Your task to perform on an android device: toggle wifi Image 0: 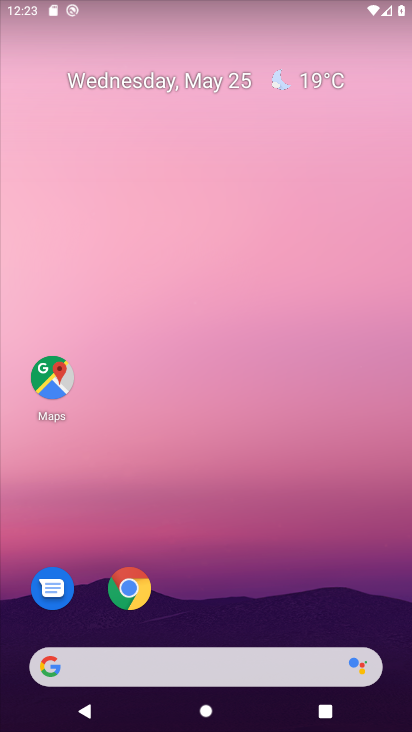
Step 0: drag from (208, 574) to (311, 120)
Your task to perform on an android device: toggle wifi Image 1: 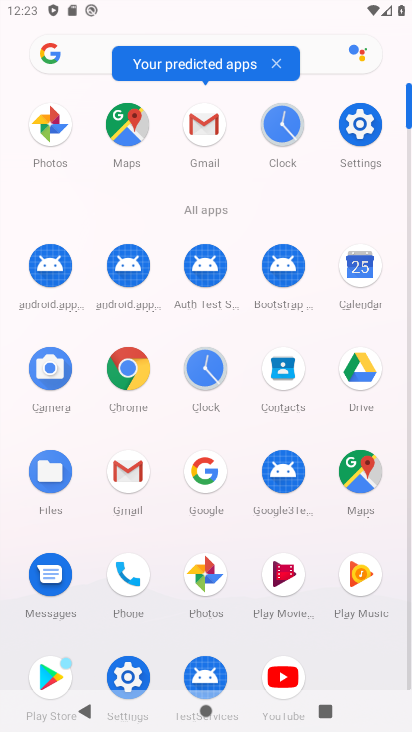
Step 1: click (122, 676)
Your task to perform on an android device: toggle wifi Image 2: 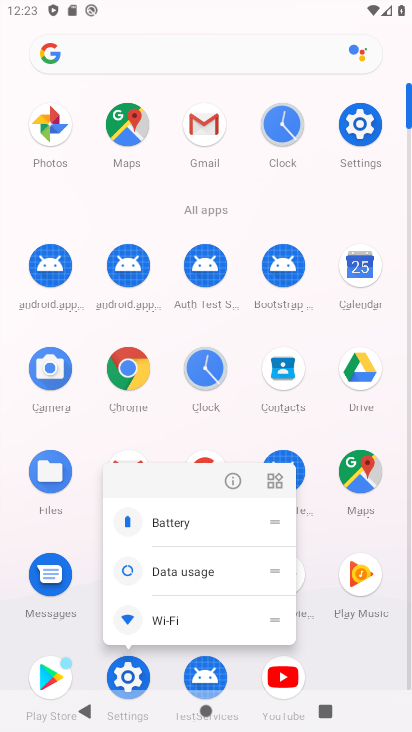
Step 2: click (134, 678)
Your task to perform on an android device: toggle wifi Image 3: 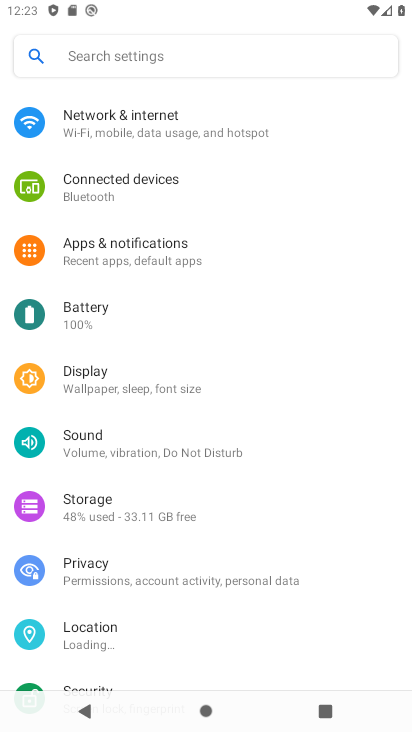
Step 3: click (173, 135)
Your task to perform on an android device: toggle wifi Image 4: 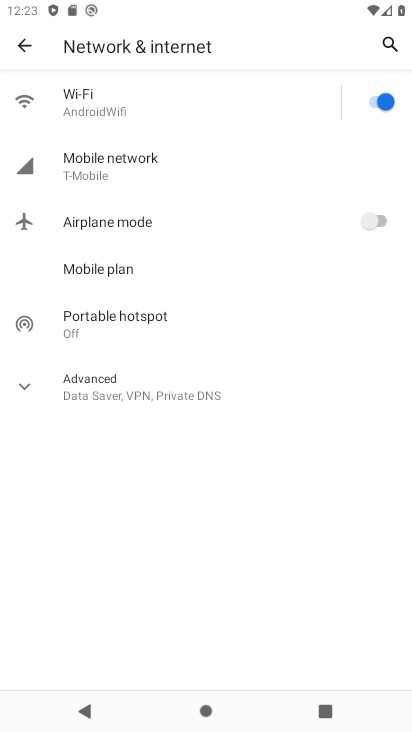
Step 4: click (370, 105)
Your task to perform on an android device: toggle wifi Image 5: 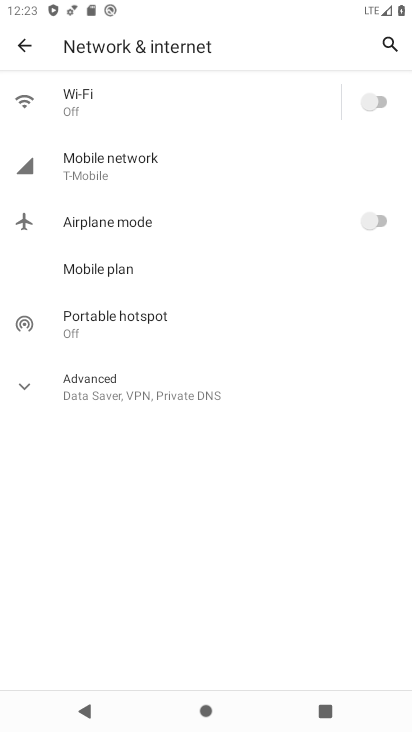
Step 5: task complete